Your task to perform on an android device: Open Google Maps Image 0: 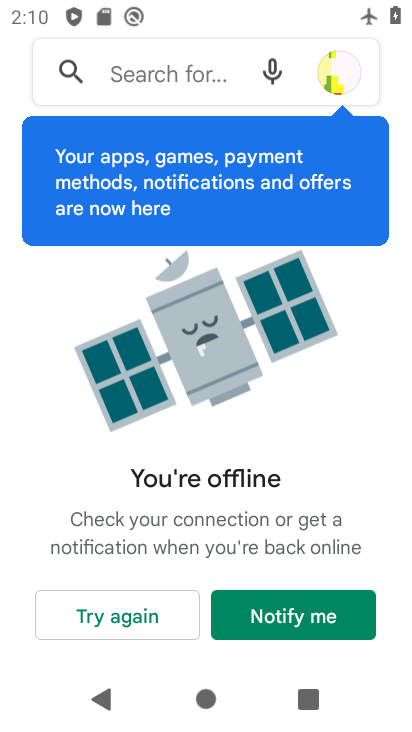
Step 0: press home button
Your task to perform on an android device: Open Google Maps Image 1: 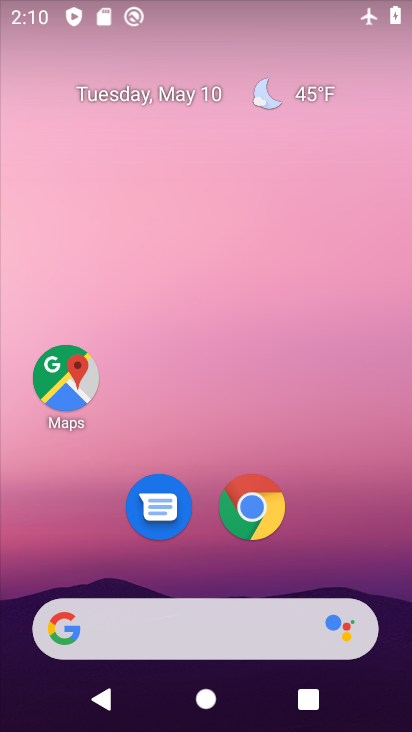
Step 1: click (90, 368)
Your task to perform on an android device: Open Google Maps Image 2: 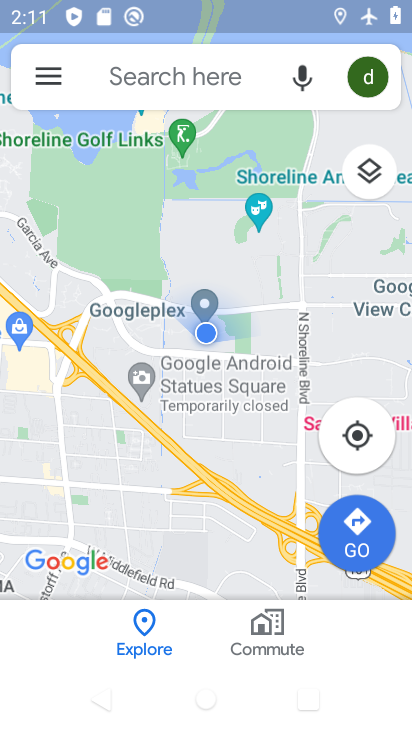
Step 2: click (214, 480)
Your task to perform on an android device: Open Google Maps Image 3: 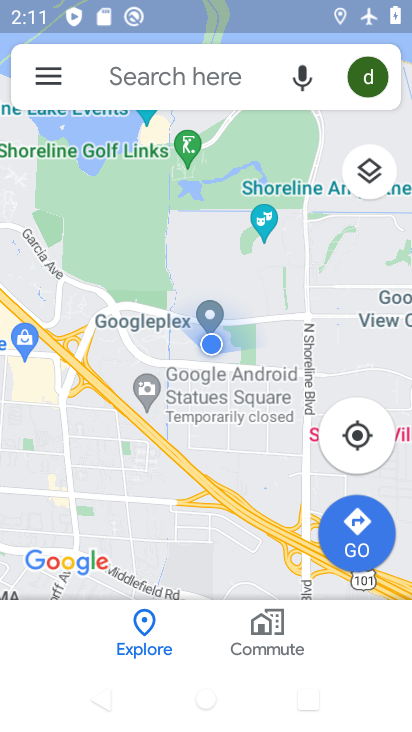
Step 3: task complete